Your task to perform on an android device: Open the phone app and click the voicemail tab. Image 0: 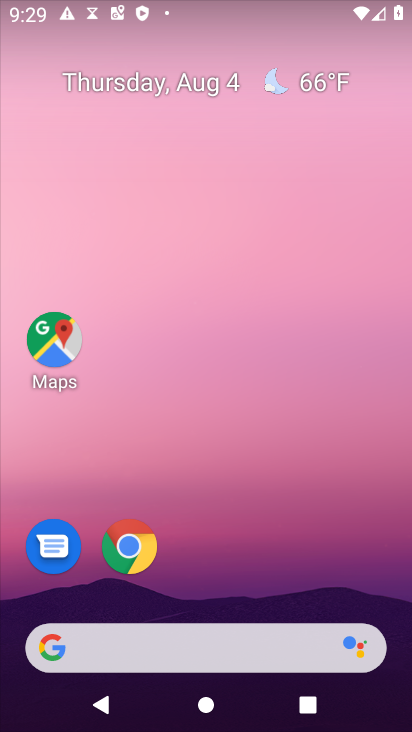
Step 0: press home button
Your task to perform on an android device: Open the phone app and click the voicemail tab. Image 1: 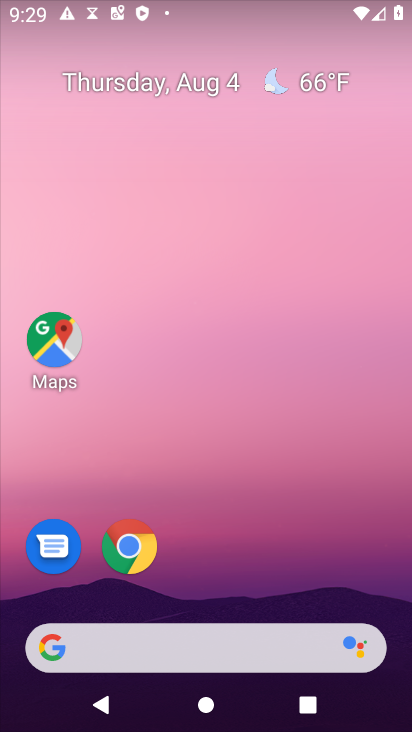
Step 1: drag from (258, 607) to (332, 50)
Your task to perform on an android device: Open the phone app and click the voicemail tab. Image 2: 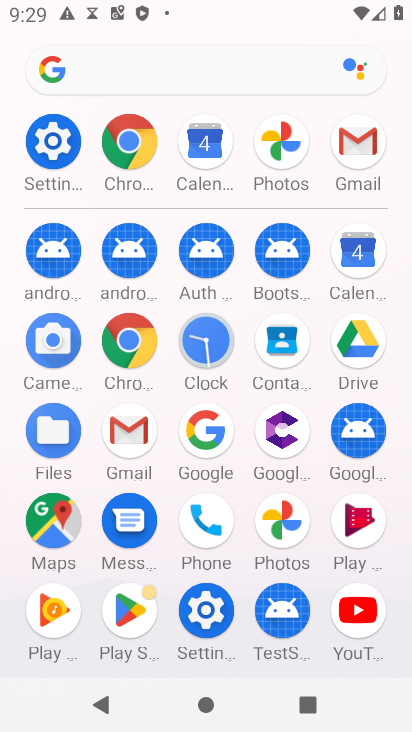
Step 2: click (206, 525)
Your task to perform on an android device: Open the phone app and click the voicemail tab. Image 3: 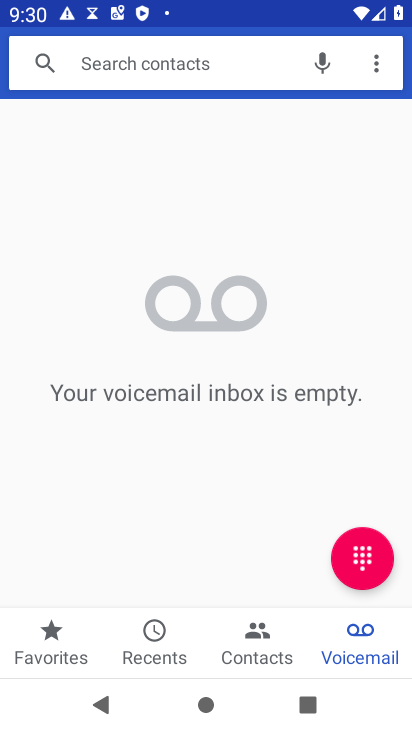
Step 3: click (358, 629)
Your task to perform on an android device: Open the phone app and click the voicemail tab. Image 4: 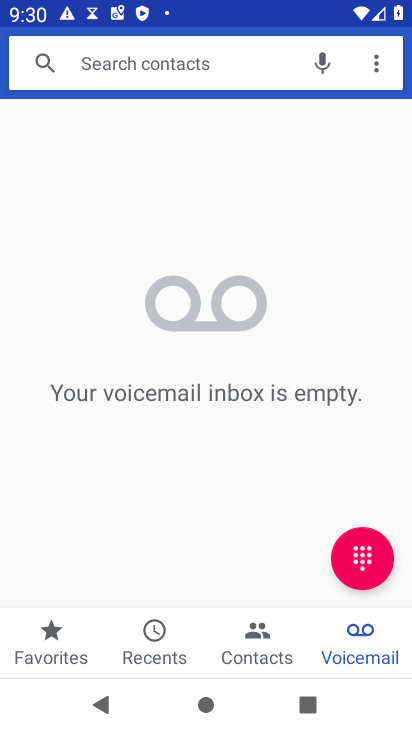
Step 4: task complete